Your task to perform on an android device: see tabs open on other devices in the chrome app Image 0: 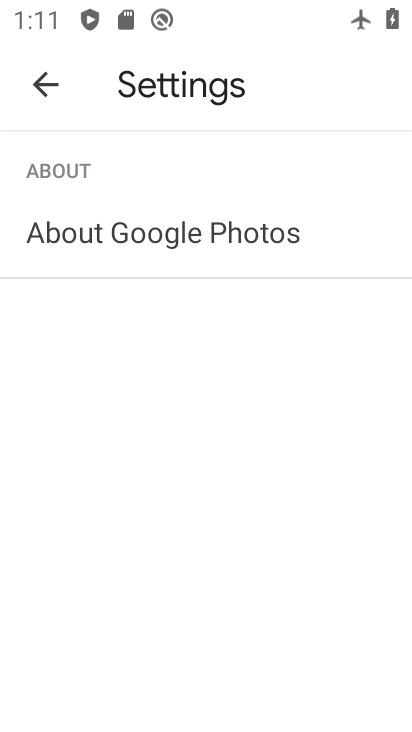
Step 0: press home button
Your task to perform on an android device: see tabs open on other devices in the chrome app Image 1: 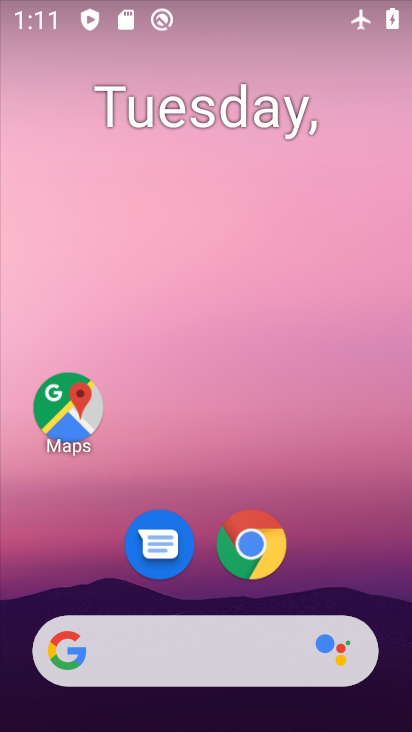
Step 1: click (255, 545)
Your task to perform on an android device: see tabs open on other devices in the chrome app Image 2: 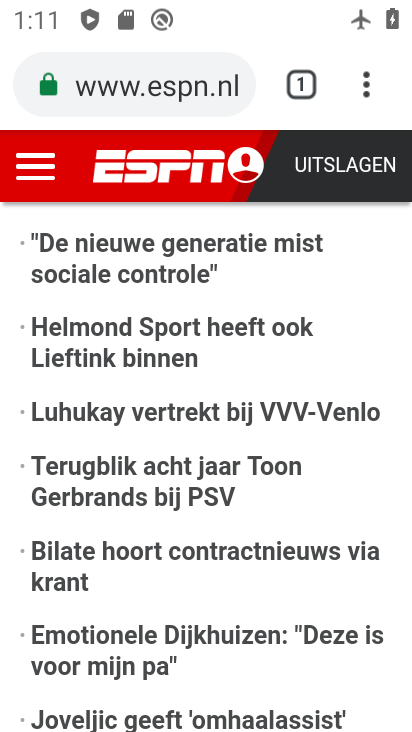
Step 2: click (365, 93)
Your task to perform on an android device: see tabs open on other devices in the chrome app Image 3: 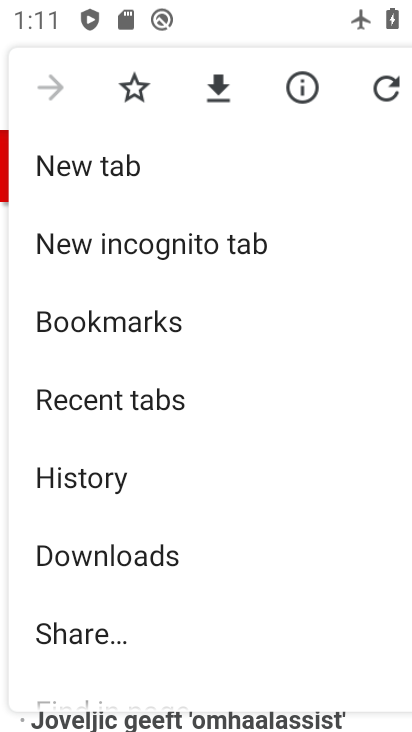
Step 3: click (96, 396)
Your task to perform on an android device: see tabs open on other devices in the chrome app Image 4: 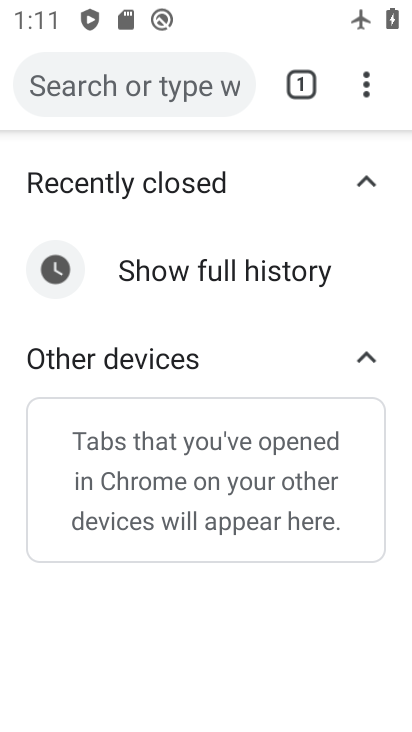
Step 4: task complete